Your task to perform on an android device: Open calendar and show me the second week of next month Image 0: 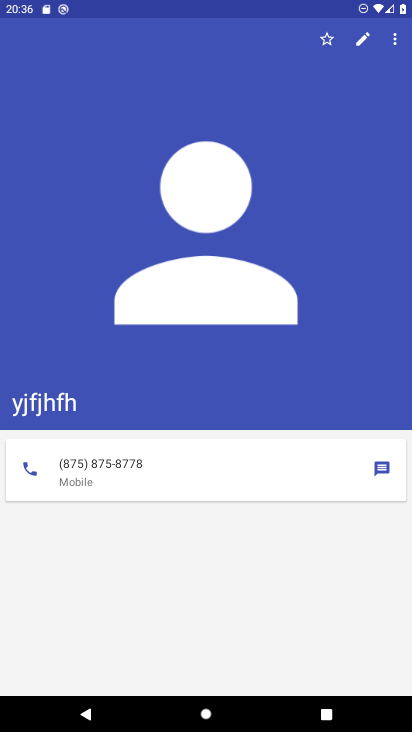
Step 0: press home button
Your task to perform on an android device: Open calendar and show me the second week of next month Image 1: 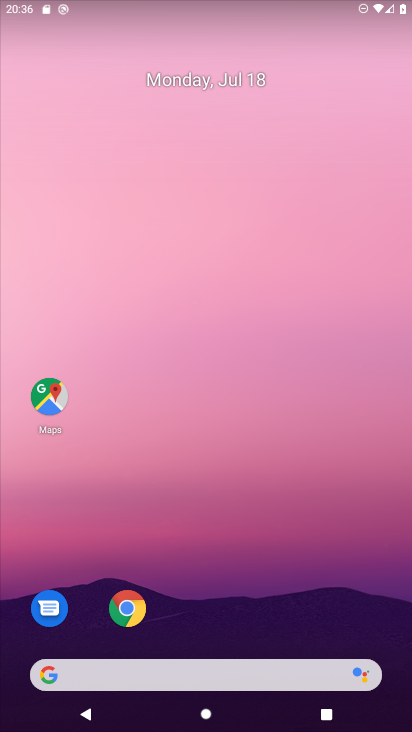
Step 1: drag from (241, 619) to (282, 103)
Your task to perform on an android device: Open calendar and show me the second week of next month Image 2: 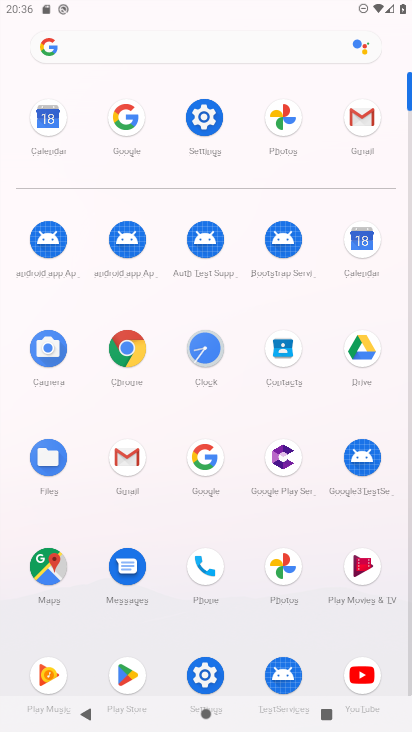
Step 2: click (360, 241)
Your task to perform on an android device: Open calendar and show me the second week of next month Image 3: 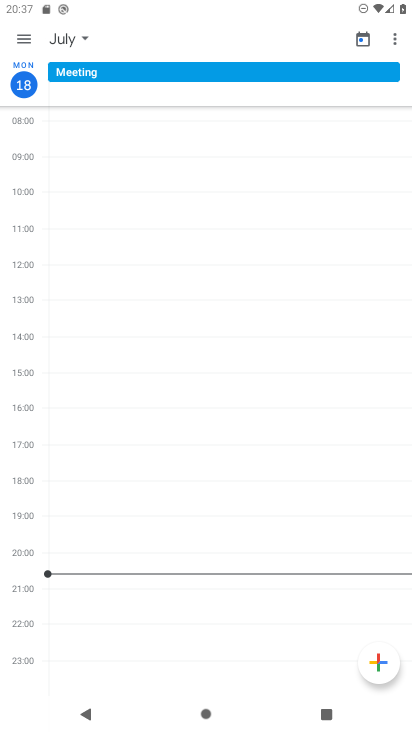
Step 3: click (78, 44)
Your task to perform on an android device: Open calendar and show me the second week of next month Image 4: 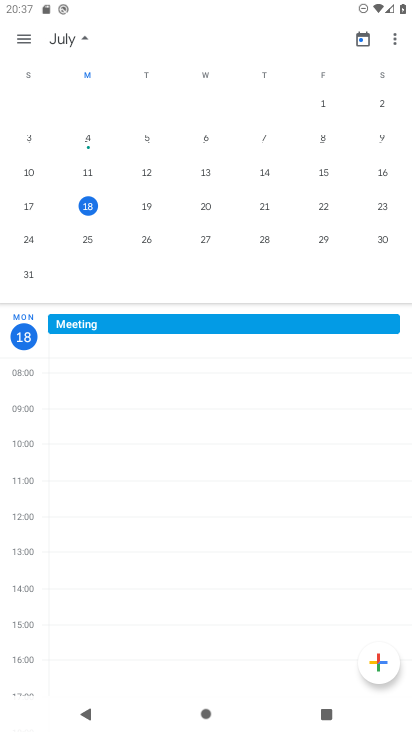
Step 4: drag from (386, 273) to (0, 235)
Your task to perform on an android device: Open calendar and show me the second week of next month Image 5: 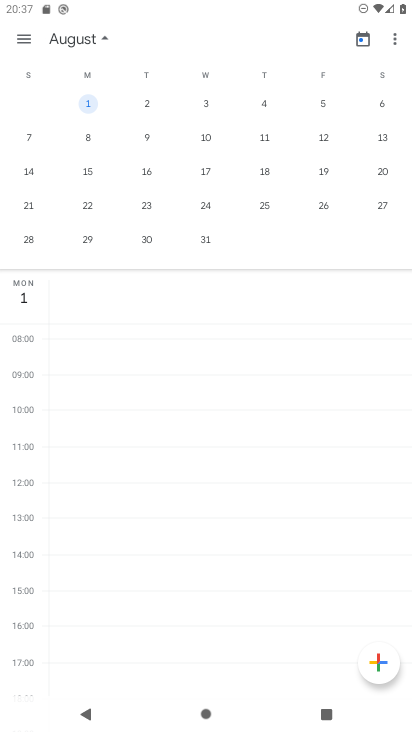
Step 5: click (204, 135)
Your task to perform on an android device: Open calendar and show me the second week of next month Image 6: 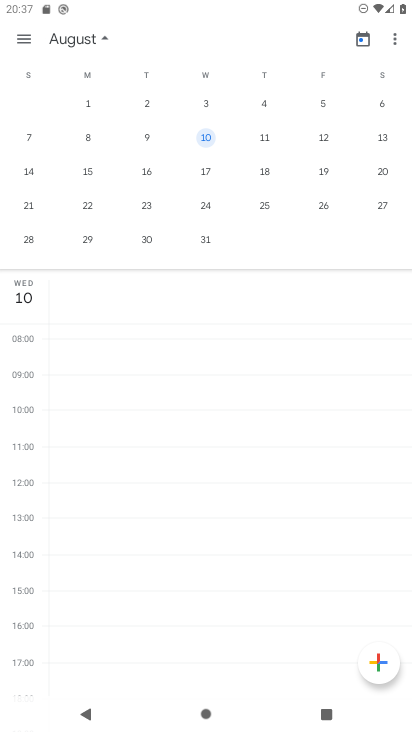
Step 6: task complete